Your task to perform on an android device: Search for dell xps on newegg, select the first entry, and add it to the cart. Image 0: 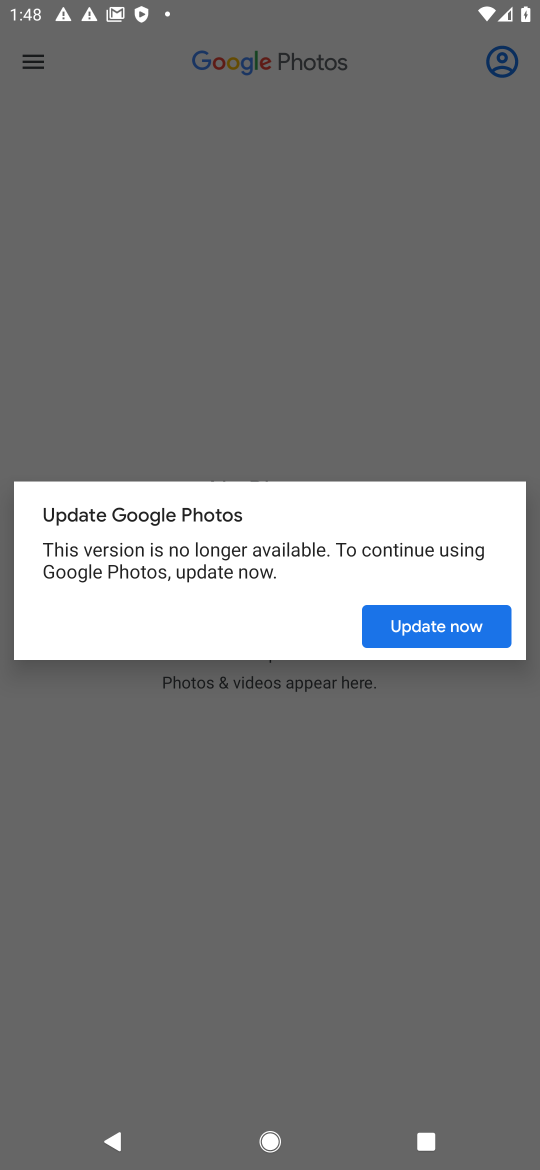
Step 0: press home button
Your task to perform on an android device: Search for dell xps on newegg, select the first entry, and add it to the cart. Image 1: 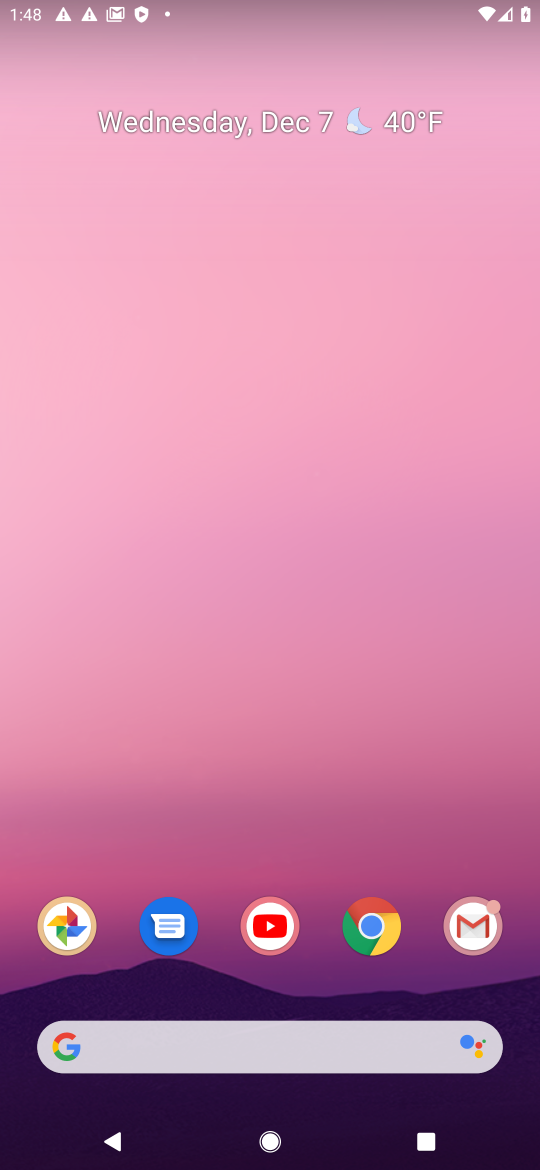
Step 1: drag from (179, 987) to (173, 285)
Your task to perform on an android device: Search for dell xps on newegg, select the first entry, and add it to the cart. Image 2: 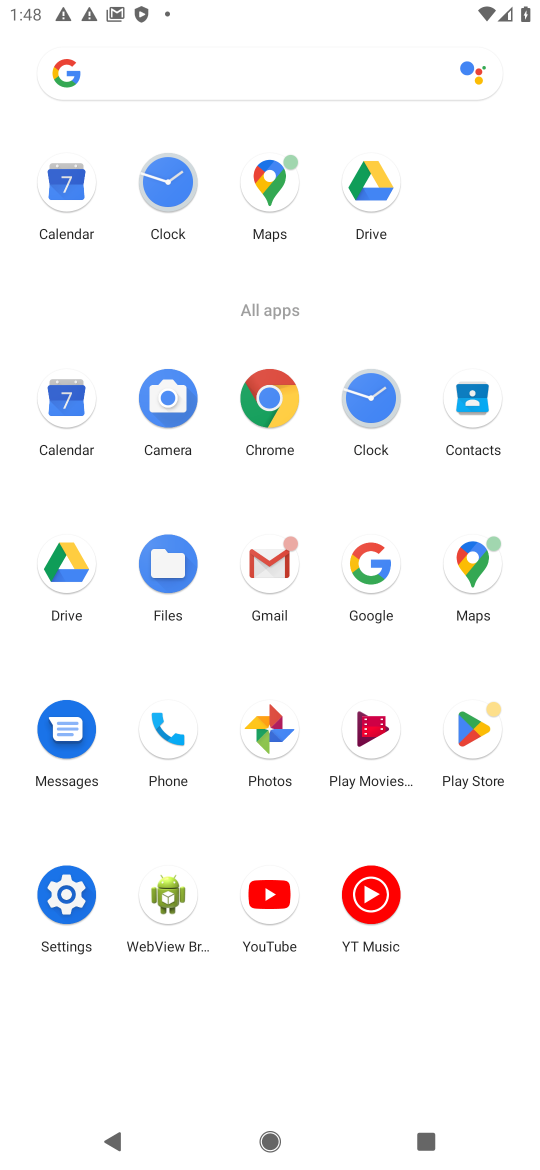
Step 2: click (365, 571)
Your task to perform on an android device: Search for dell xps on newegg, select the first entry, and add it to the cart. Image 3: 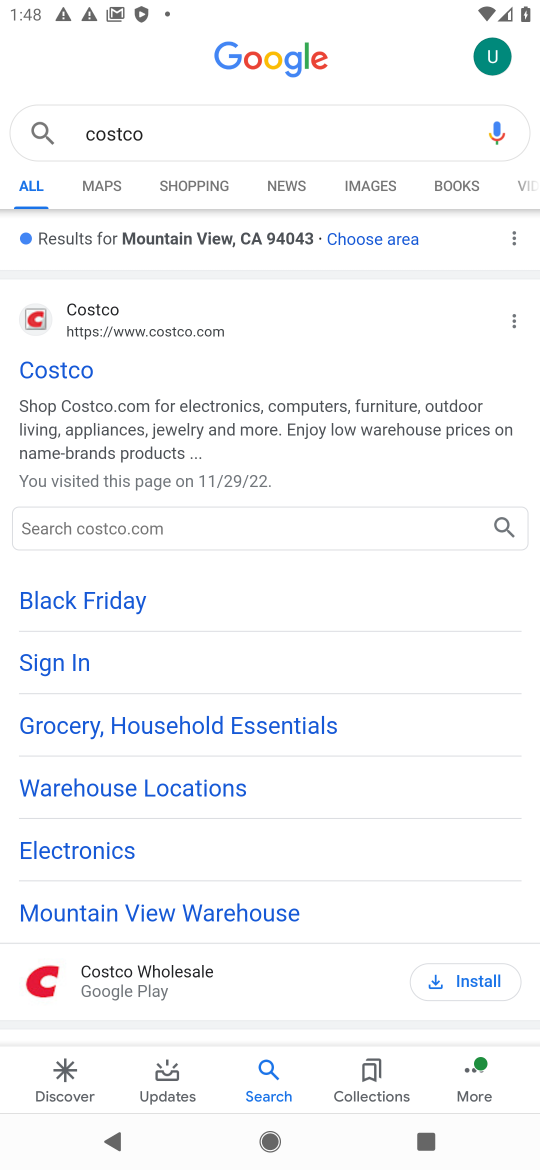
Step 3: click (184, 132)
Your task to perform on an android device: Search for dell xps on newegg, select the first entry, and add it to the cart. Image 4: 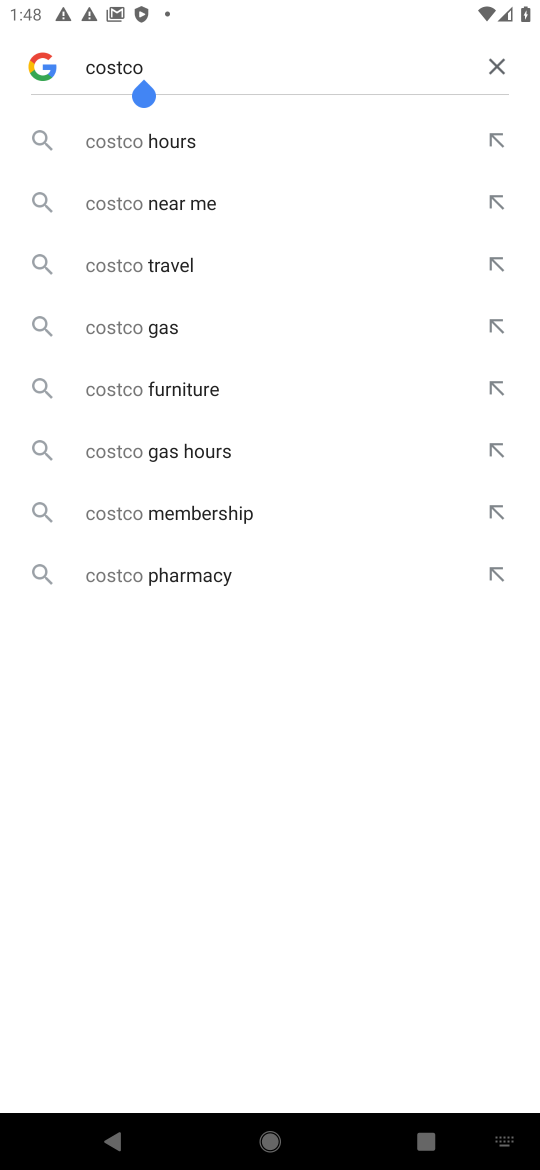
Step 4: click (513, 61)
Your task to perform on an android device: Search for dell xps on newegg, select the first entry, and add it to the cart. Image 5: 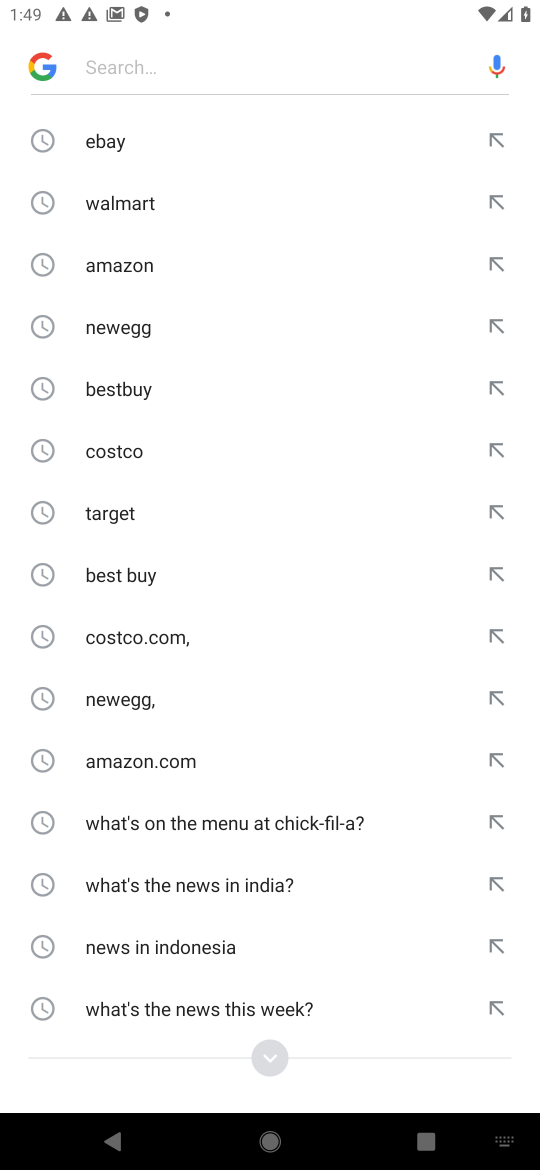
Step 5: click (123, 329)
Your task to perform on an android device: Search for dell xps on newegg, select the first entry, and add it to the cart. Image 6: 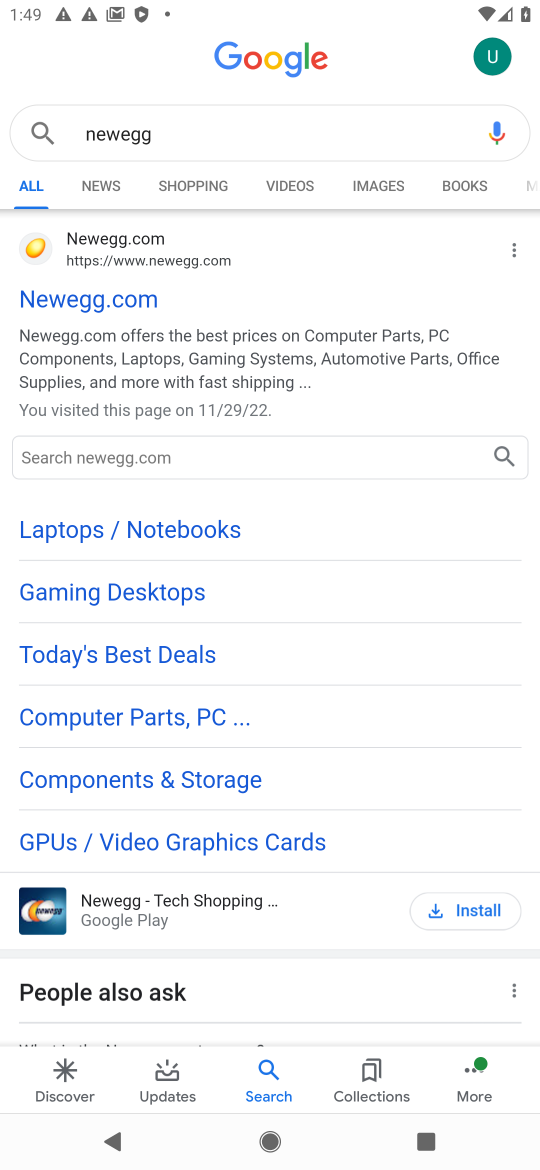
Step 6: click (102, 303)
Your task to perform on an android device: Search for dell xps on newegg, select the first entry, and add it to the cart. Image 7: 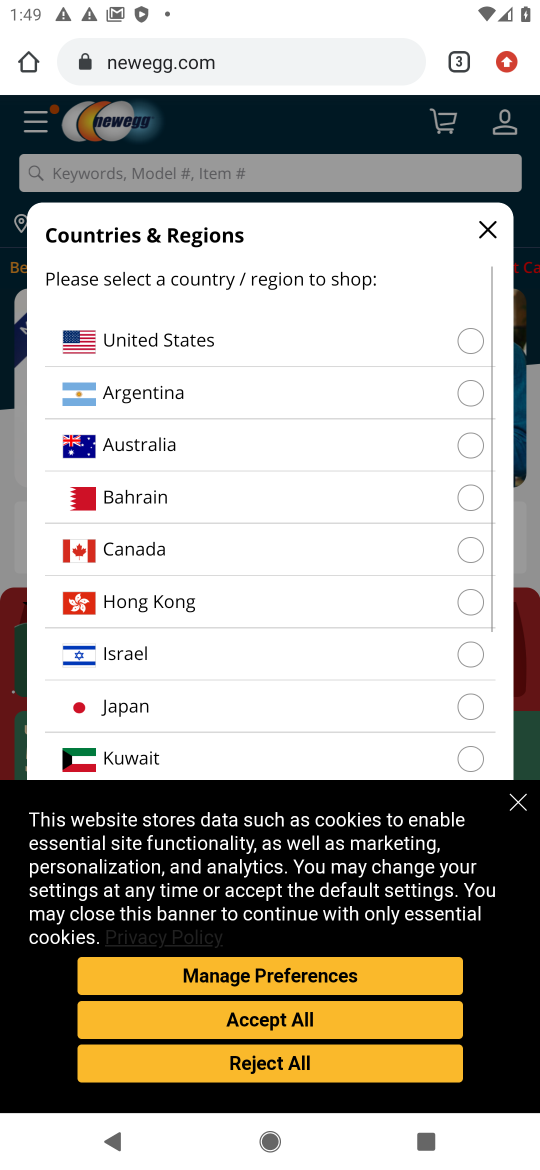
Step 7: click (479, 230)
Your task to perform on an android device: Search for dell xps on newegg, select the first entry, and add it to the cart. Image 8: 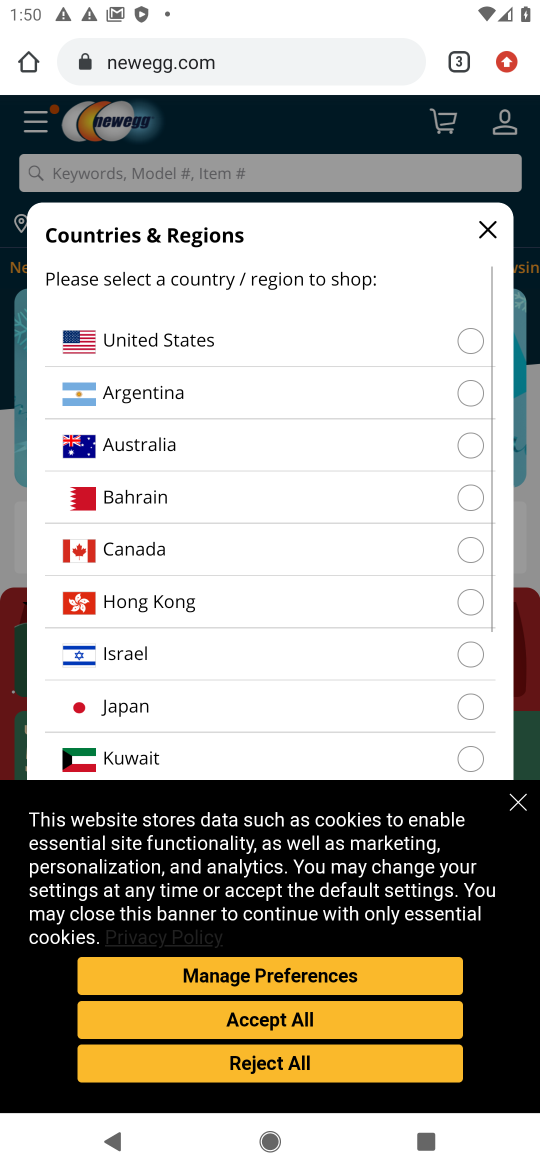
Step 8: click (496, 226)
Your task to perform on an android device: Search for dell xps on newegg, select the first entry, and add it to the cart. Image 9: 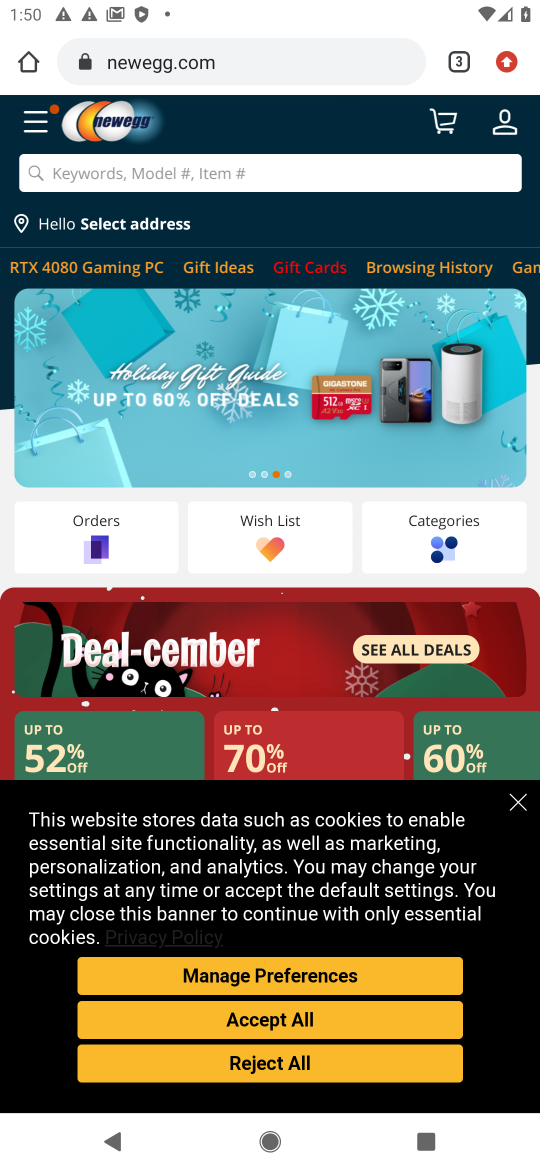
Step 9: click (130, 181)
Your task to perform on an android device: Search for dell xps on newegg, select the first entry, and add it to the cart. Image 10: 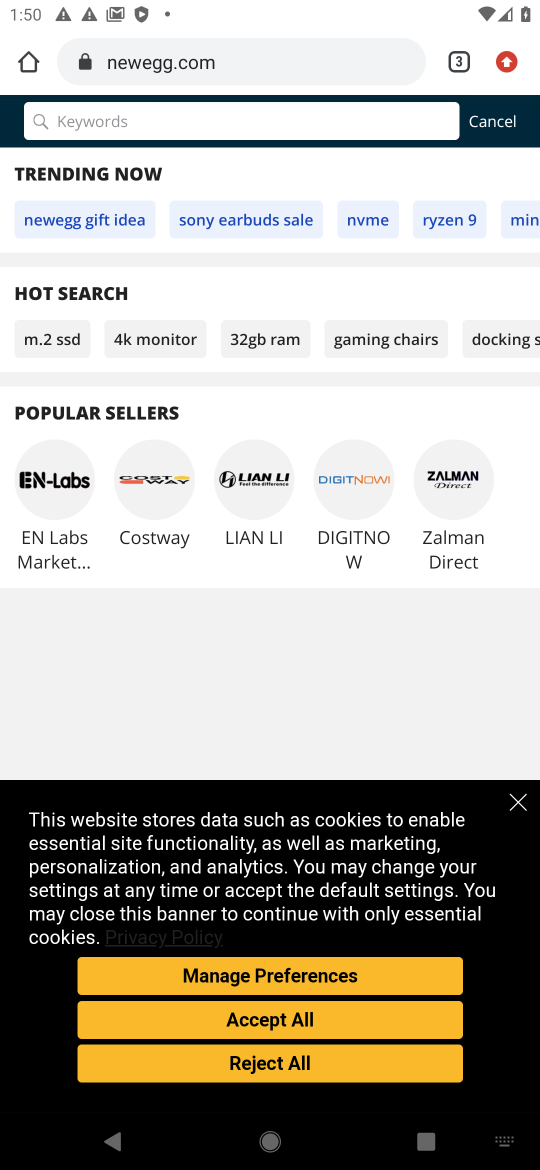
Step 10: type "dell xps"
Your task to perform on an android device: Search for dell xps on newegg, select the first entry, and add it to the cart. Image 11: 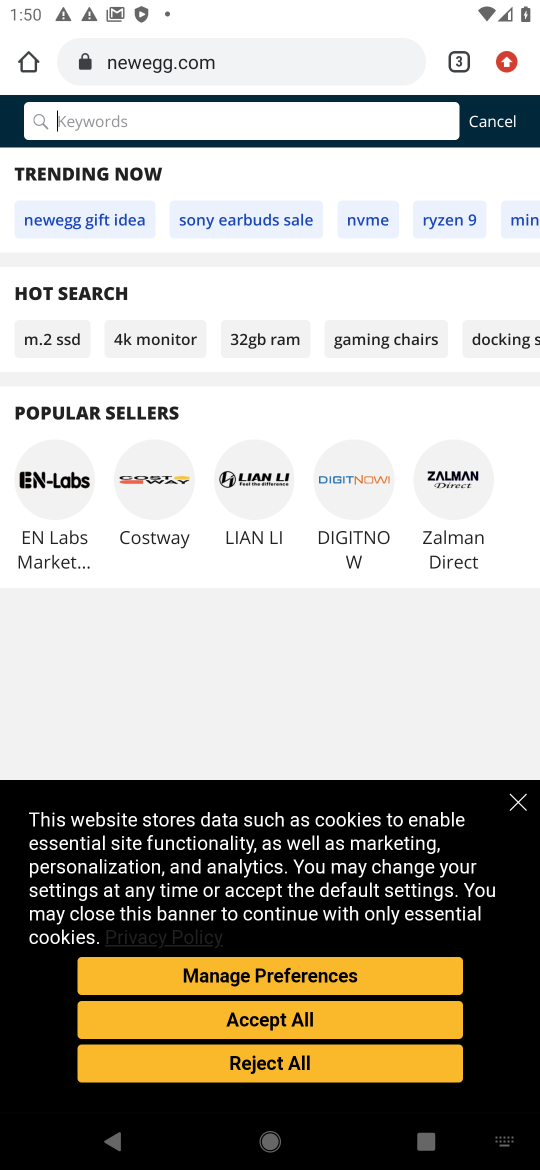
Step 11: click (32, 114)
Your task to perform on an android device: Search for dell xps on newegg, select the first entry, and add it to the cart. Image 12: 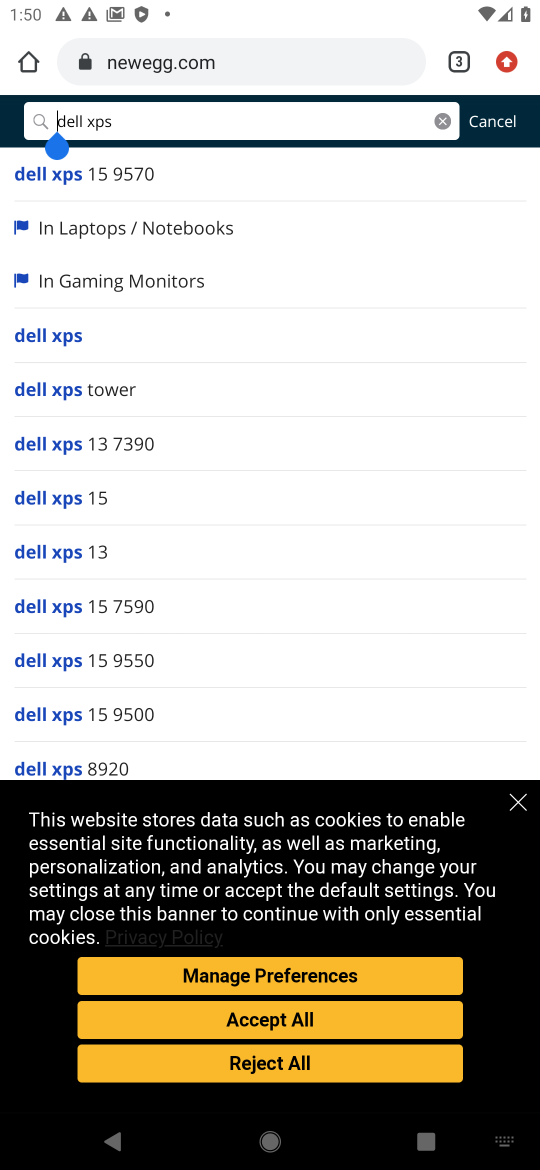
Step 12: click (87, 339)
Your task to perform on an android device: Search for dell xps on newegg, select the first entry, and add it to the cart. Image 13: 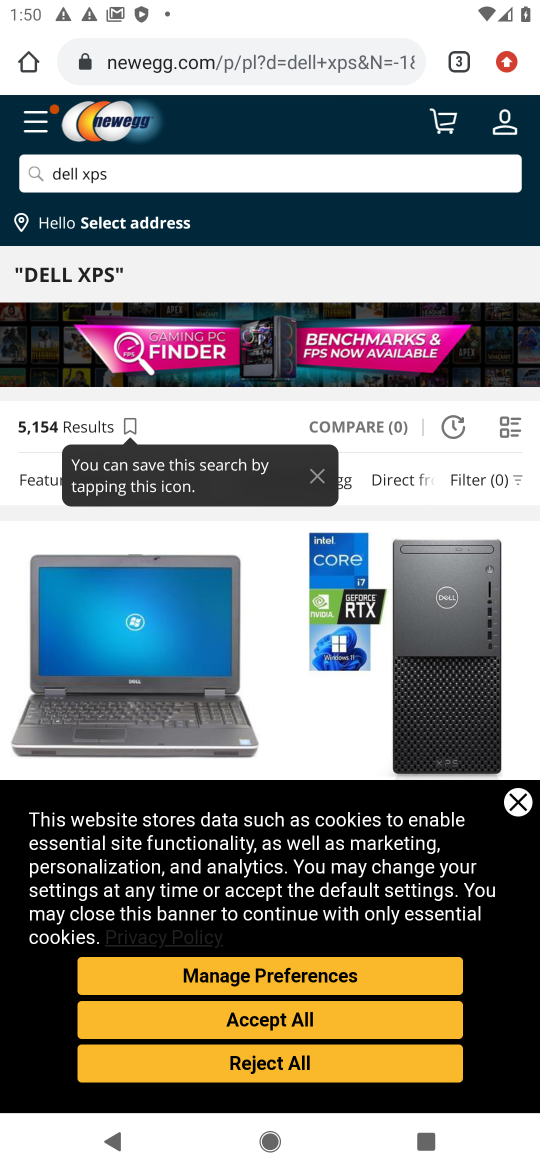
Step 13: click (532, 805)
Your task to perform on an android device: Search for dell xps on newegg, select the first entry, and add it to the cart. Image 14: 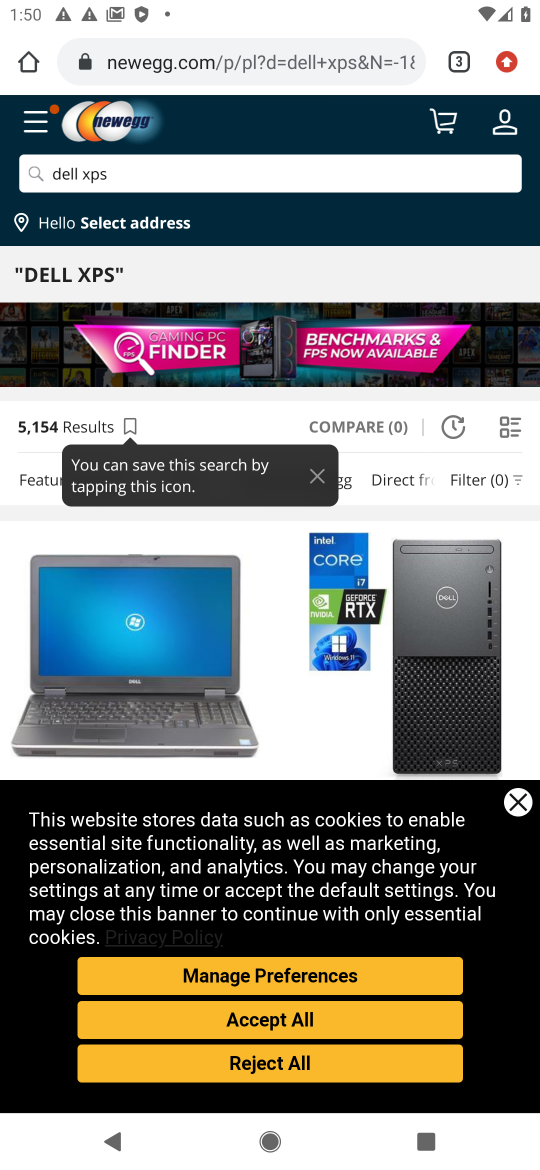
Step 14: click (152, 696)
Your task to perform on an android device: Search for dell xps on newegg, select the first entry, and add it to the cart. Image 15: 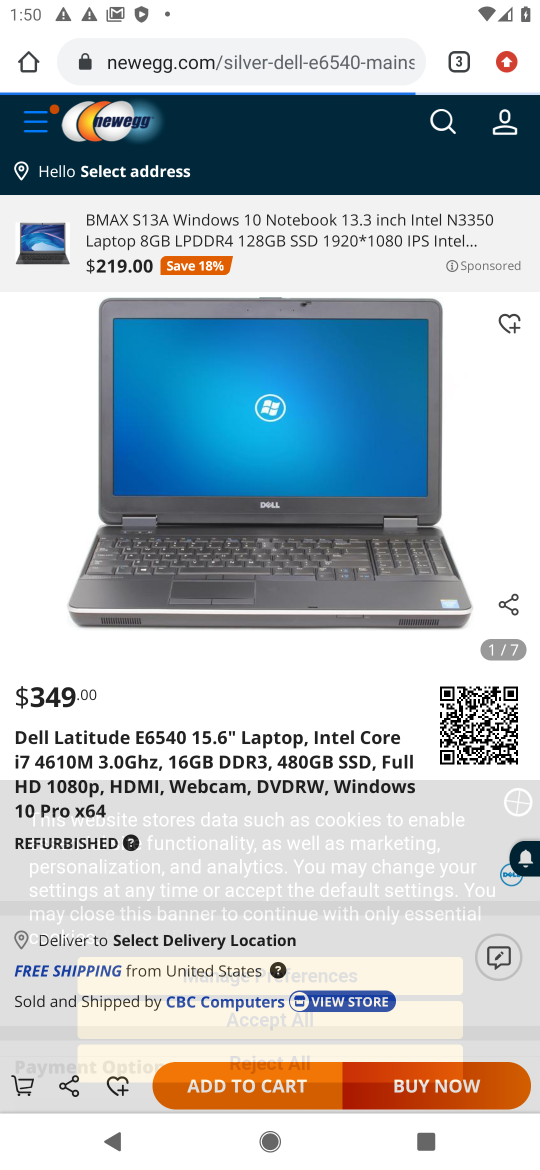
Step 15: click (273, 1084)
Your task to perform on an android device: Search for dell xps on newegg, select the first entry, and add it to the cart. Image 16: 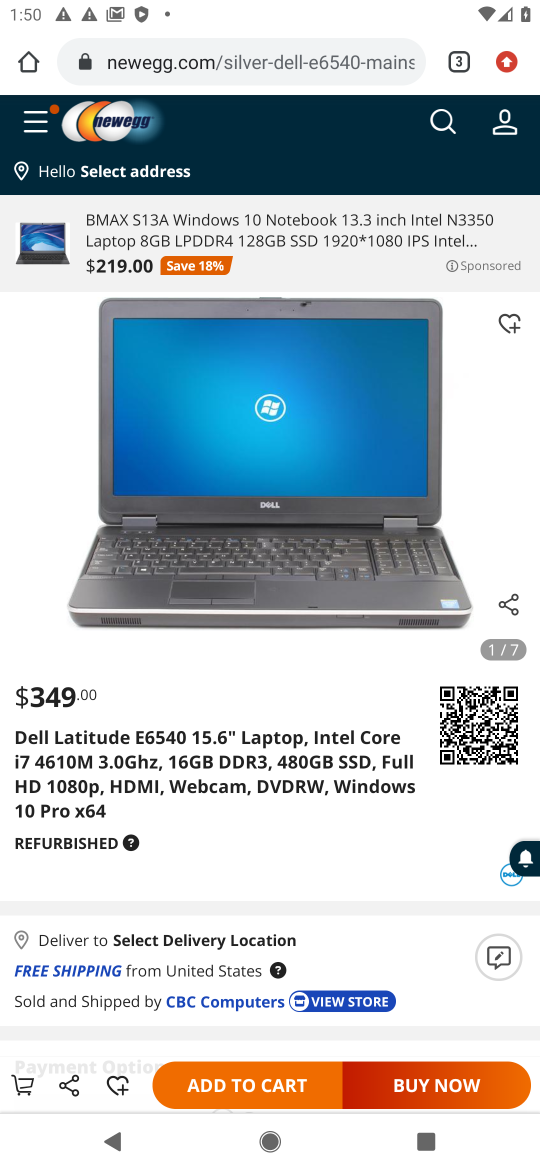
Step 16: click (203, 1088)
Your task to perform on an android device: Search for dell xps on newegg, select the first entry, and add it to the cart. Image 17: 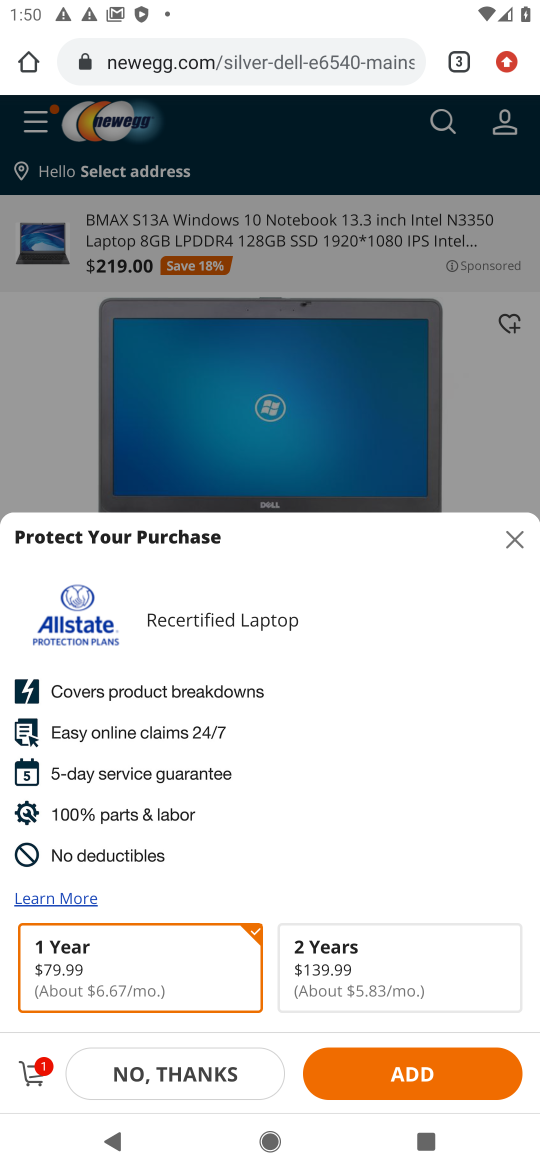
Step 17: task complete